Your task to perform on an android device: Open Chrome and go to settings Image 0: 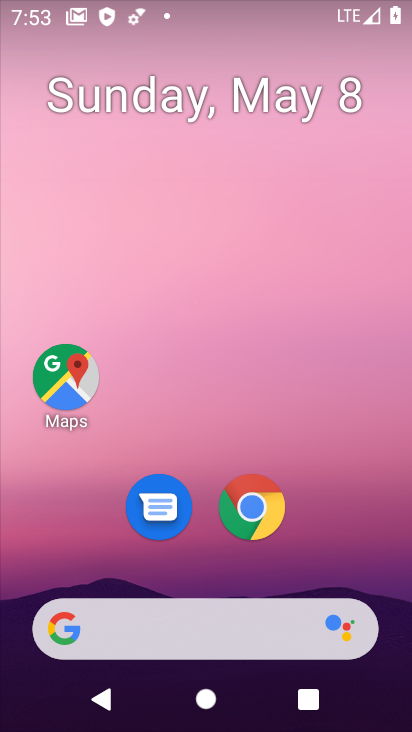
Step 0: click (258, 505)
Your task to perform on an android device: Open Chrome and go to settings Image 1: 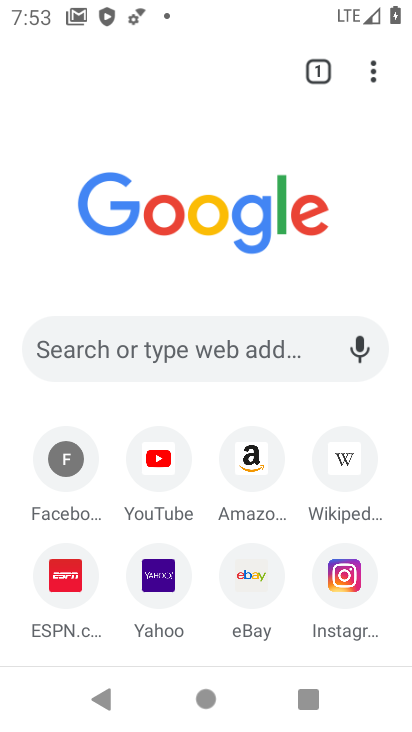
Step 1: click (381, 58)
Your task to perform on an android device: Open Chrome and go to settings Image 2: 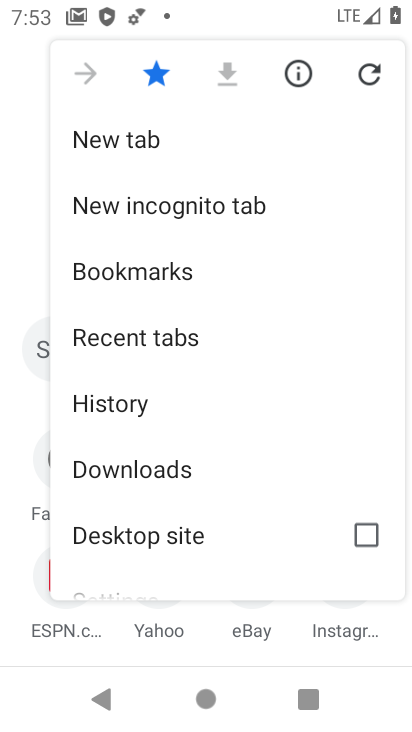
Step 2: drag from (235, 526) to (246, 29)
Your task to perform on an android device: Open Chrome and go to settings Image 3: 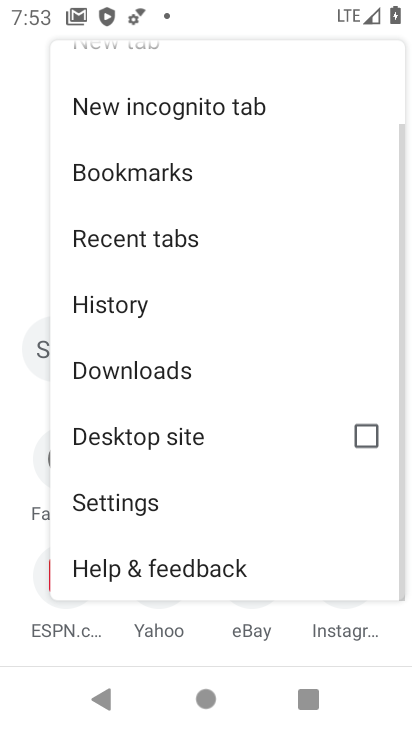
Step 3: click (151, 504)
Your task to perform on an android device: Open Chrome and go to settings Image 4: 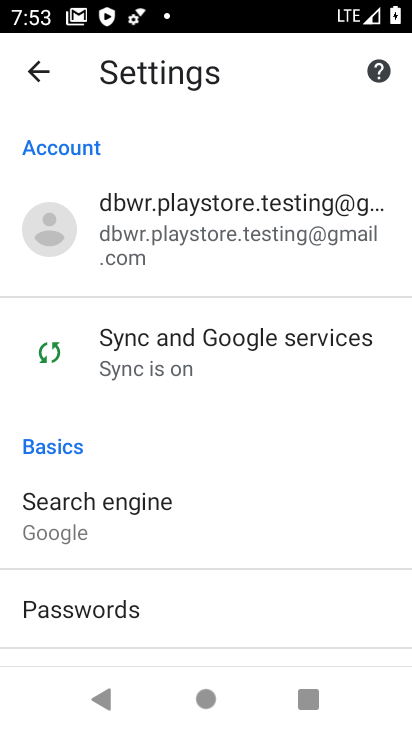
Step 4: task complete